Your task to perform on an android device: Go to Google maps Image 0: 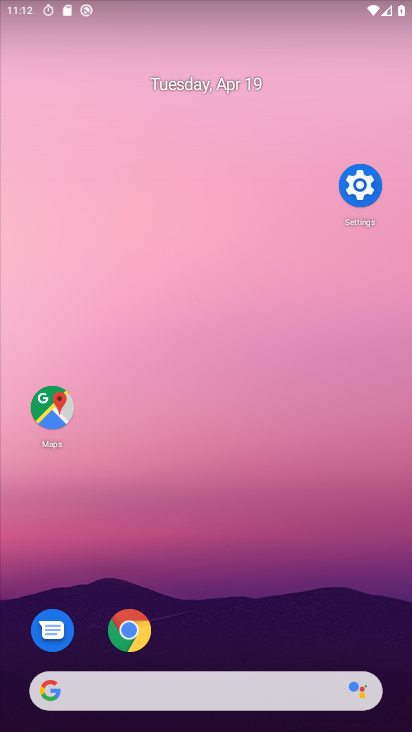
Step 0: drag from (272, 638) to (291, 244)
Your task to perform on an android device: Go to Google maps Image 1: 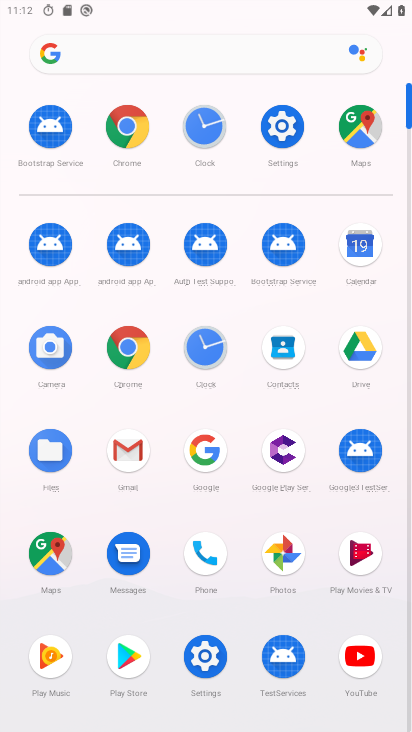
Step 1: click (50, 561)
Your task to perform on an android device: Go to Google maps Image 2: 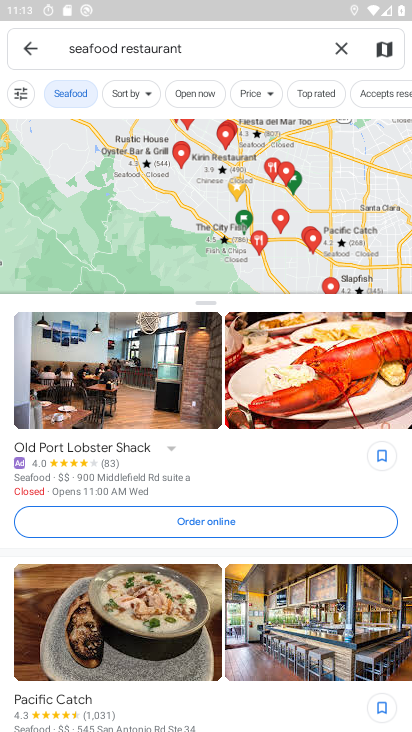
Step 2: task complete